Your task to perform on an android device: turn on location history Image 0: 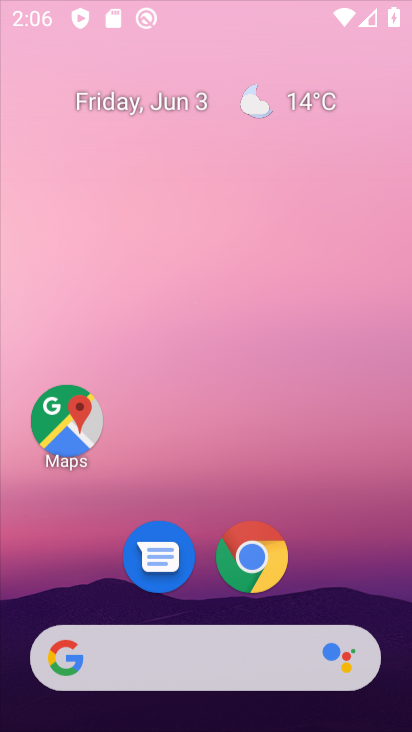
Step 0: press back button
Your task to perform on an android device: turn on location history Image 1: 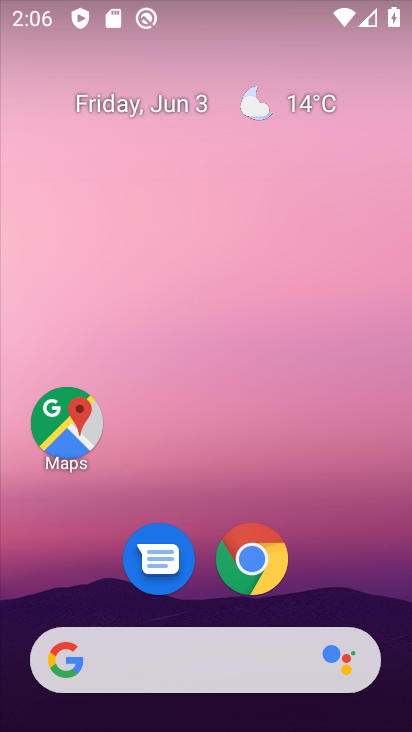
Step 1: drag from (233, 609) to (170, 63)
Your task to perform on an android device: turn on location history Image 2: 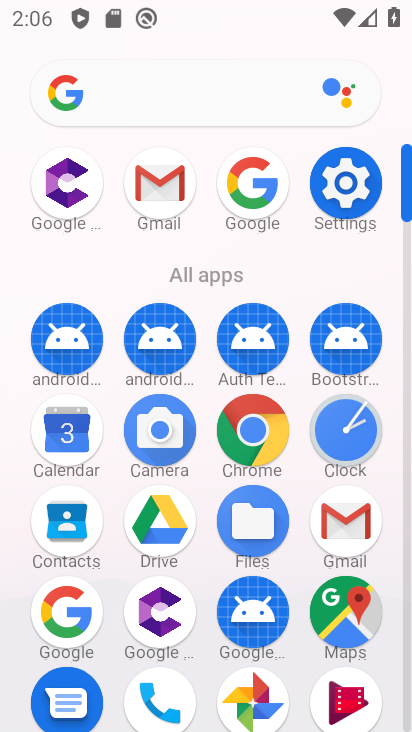
Step 2: click (340, 190)
Your task to perform on an android device: turn on location history Image 3: 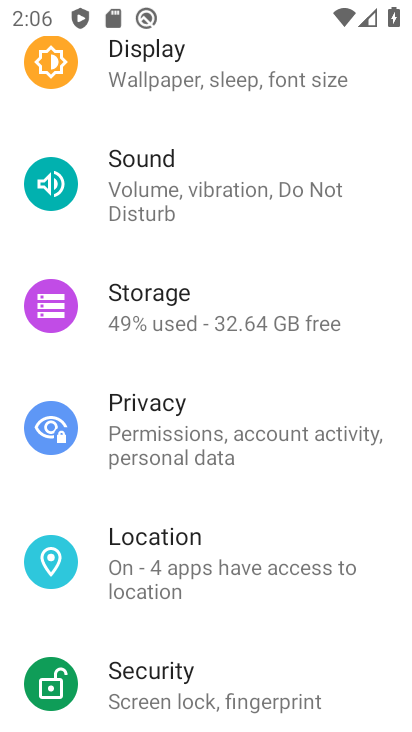
Step 3: click (194, 581)
Your task to perform on an android device: turn on location history Image 4: 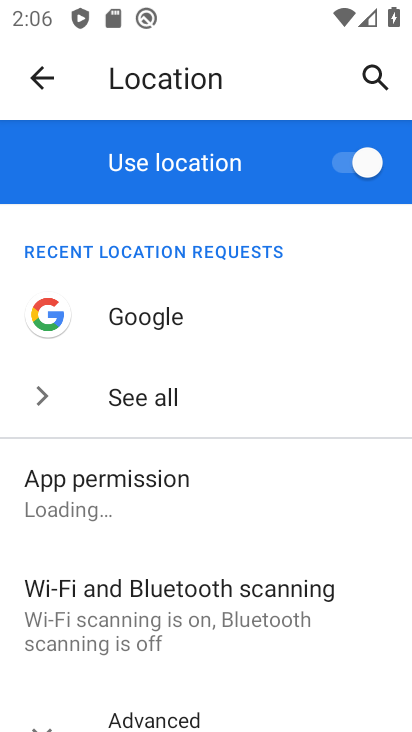
Step 4: drag from (142, 621) to (74, 110)
Your task to perform on an android device: turn on location history Image 5: 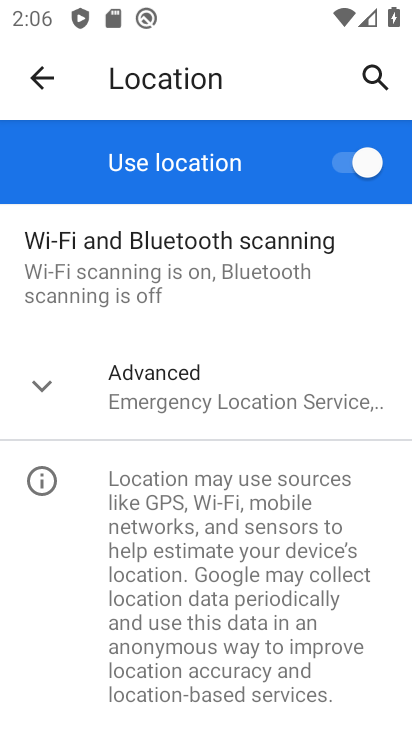
Step 5: click (137, 350)
Your task to perform on an android device: turn on location history Image 6: 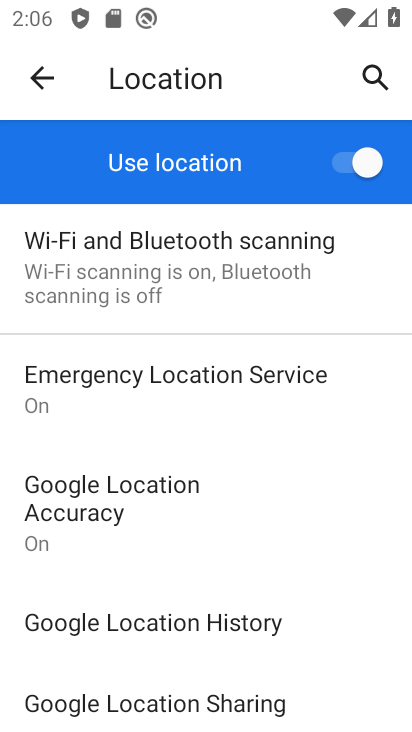
Step 6: click (173, 622)
Your task to perform on an android device: turn on location history Image 7: 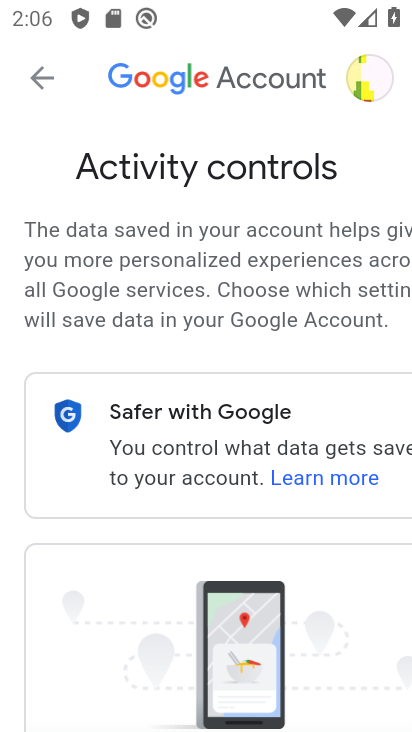
Step 7: task complete